Your task to perform on an android device: turn pop-ups on in chrome Image 0: 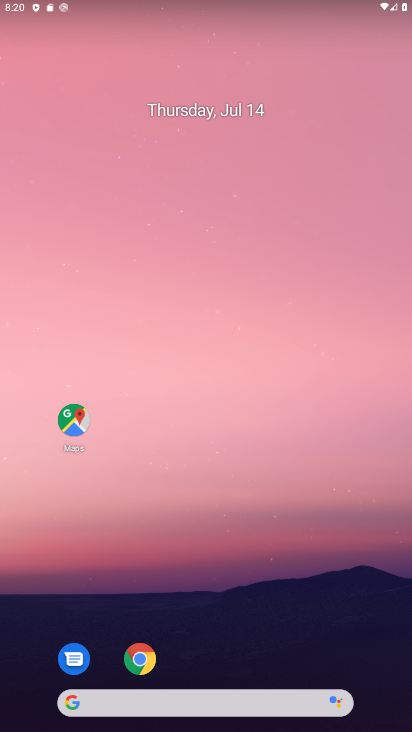
Step 0: click (145, 656)
Your task to perform on an android device: turn pop-ups on in chrome Image 1: 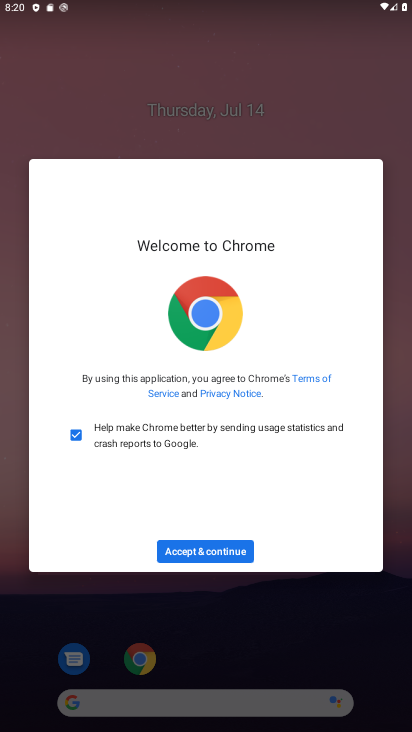
Step 1: click (216, 551)
Your task to perform on an android device: turn pop-ups on in chrome Image 2: 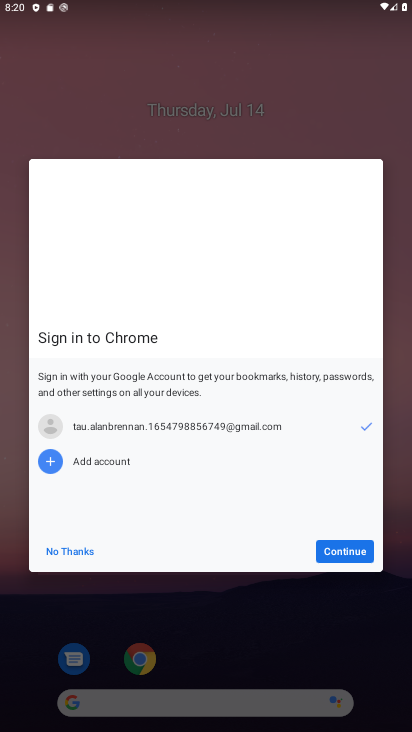
Step 2: click (327, 556)
Your task to perform on an android device: turn pop-ups on in chrome Image 3: 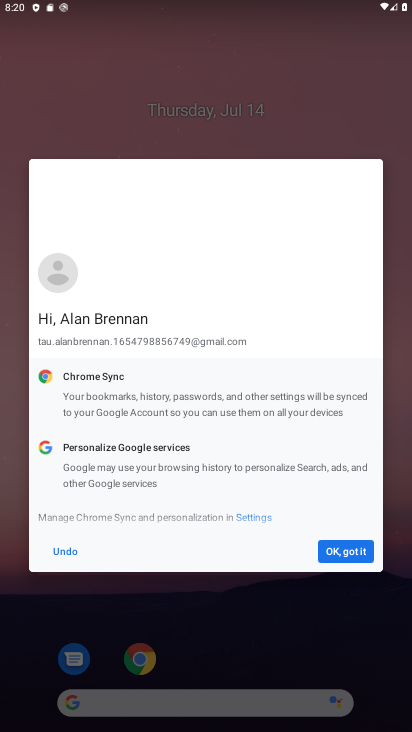
Step 3: click (327, 556)
Your task to perform on an android device: turn pop-ups on in chrome Image 4: 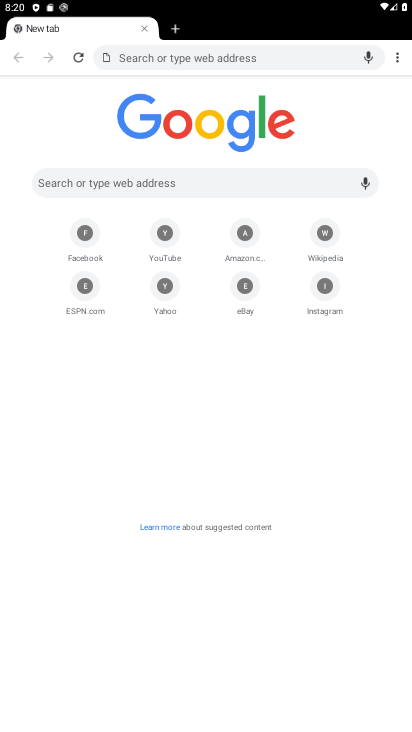
Step 4: click (394, 60)
Your task to perform on an android device: turn pop-ups on in chrome Image 5: 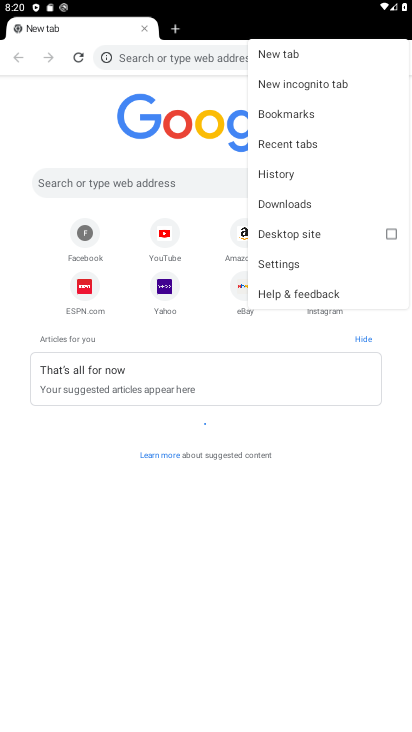
Step 5: click (286, 258)
Your task to perform on an android device: turn pop-ups on in chrome Image 6: 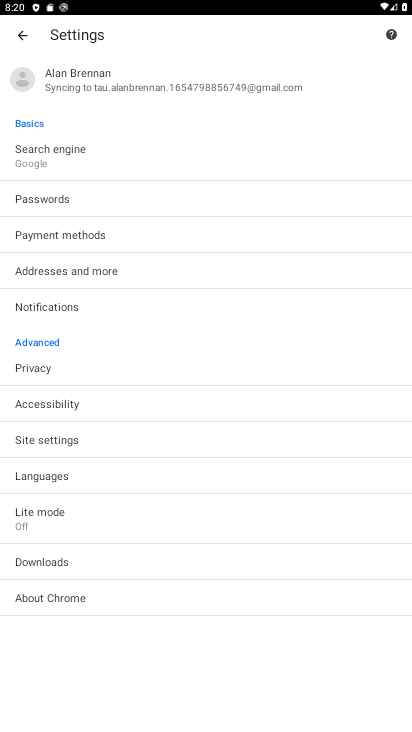
Step 6: click (44, 433)
Your task to perform on an android device: turn pop-ups on in chrome Image 7: 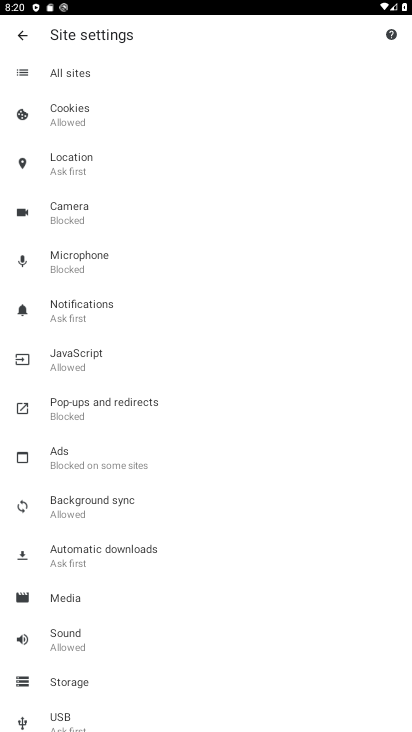
Step 7: click (64, 402)
Your task to perform on an android device: turn pop-ups on in chrome Image 8: 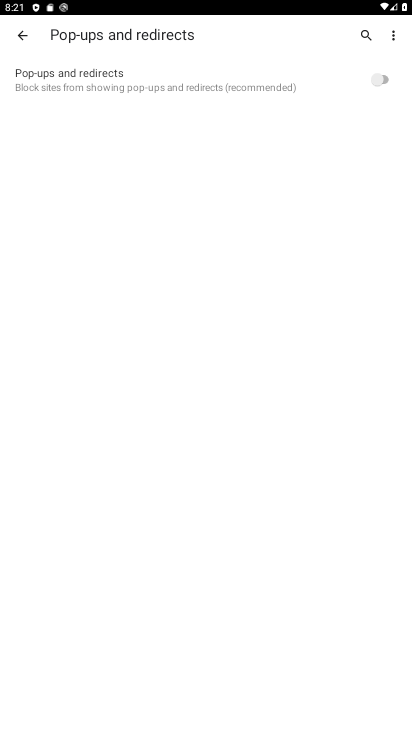
Step 8: click (377, 81)
Your task to perform on an android device: turn pop-ups on in chrome Image 9: 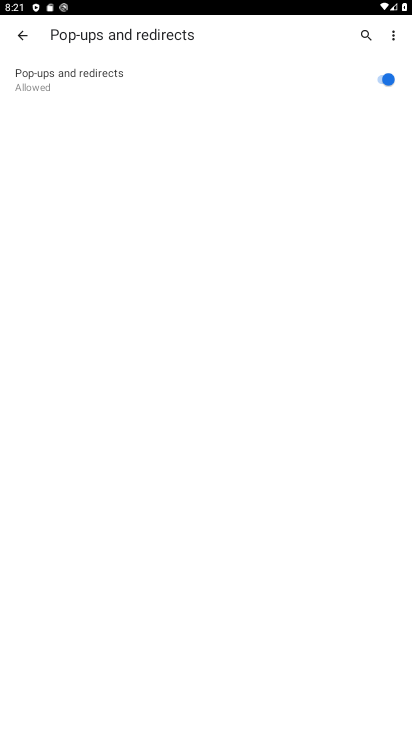
Step 9: task complete